Your task to perform on an android device: Open Google Chrome Image 0: 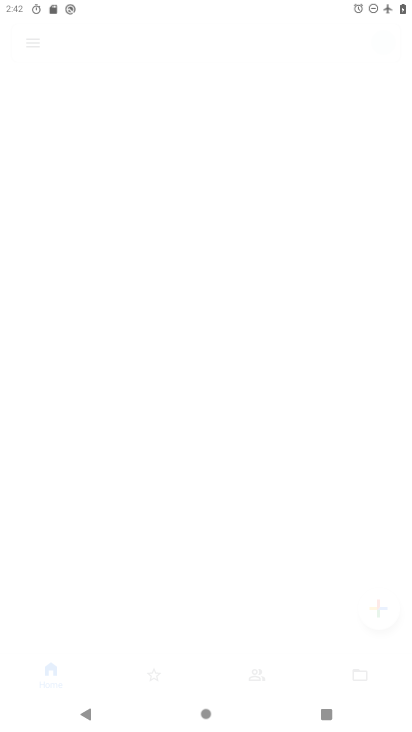
Step 0: drag from (192, 654) to (262, 38)
Your task to perform on an android device: Open Google Chrome Image 1: 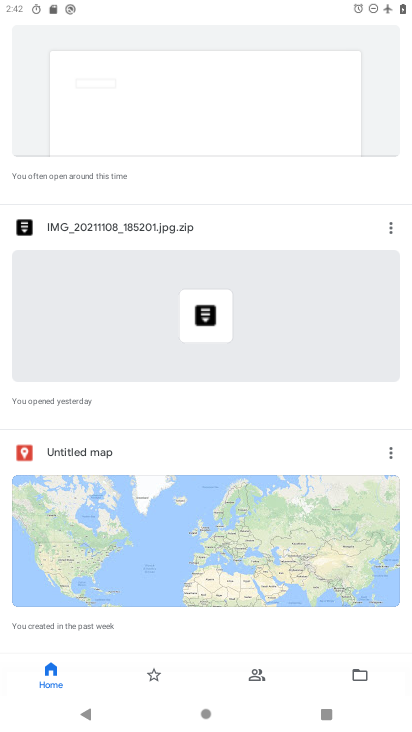
Step 1: press home button
Your task to perform on an android device: Open Google Chrome Image 2: 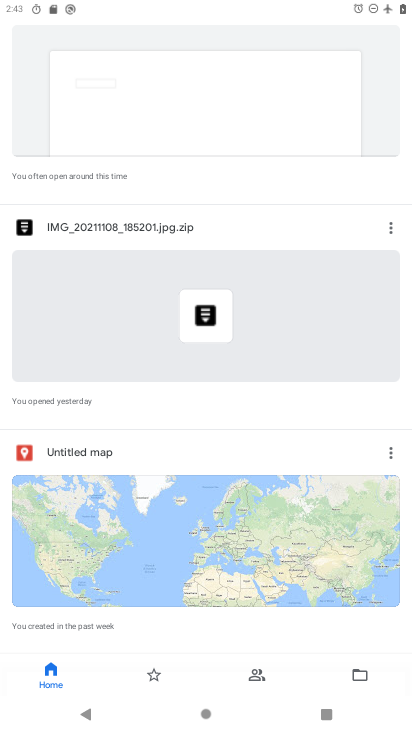
Step 2: drag from (262, 38) to (400, 707)
Your task to perform on an android device: Open Google Chrome Image 3: 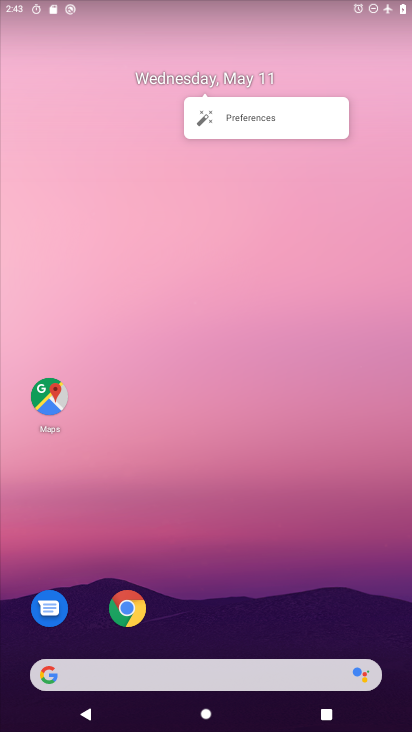
Step 3: click (124, 623)
Your task to perform on an android device: Open Google Chrome Image 4: 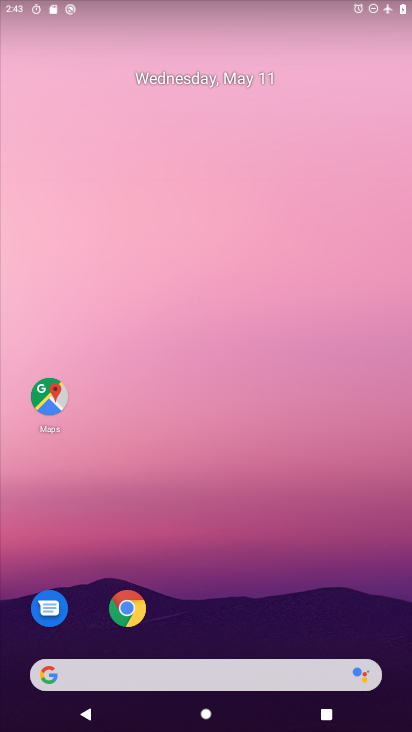
Step 4: click (123, 622)
Your task to perform on an android device: Open Google Chrome Image 5: 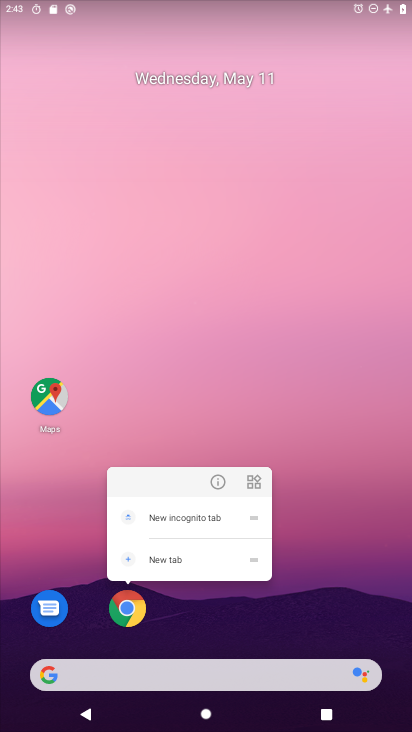
Step 5: click (121, 622)
Your task to perform on an android device: Open Google Chrome Image 6: 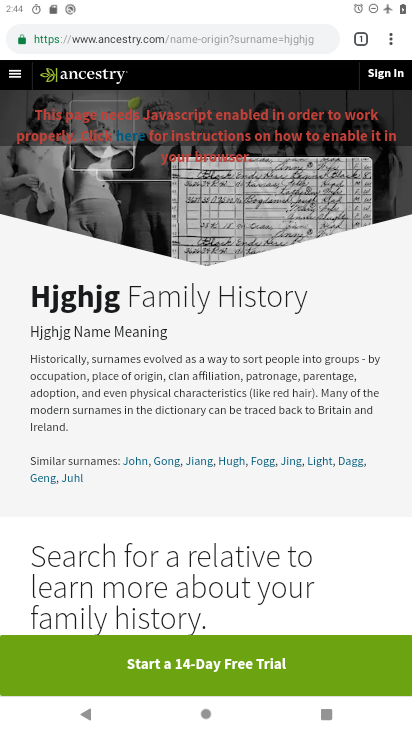
Step 6: task complete